Your task to perform on an android device: Add logitech g pro to the cart on amazon.com, then select checkout. Image 0: 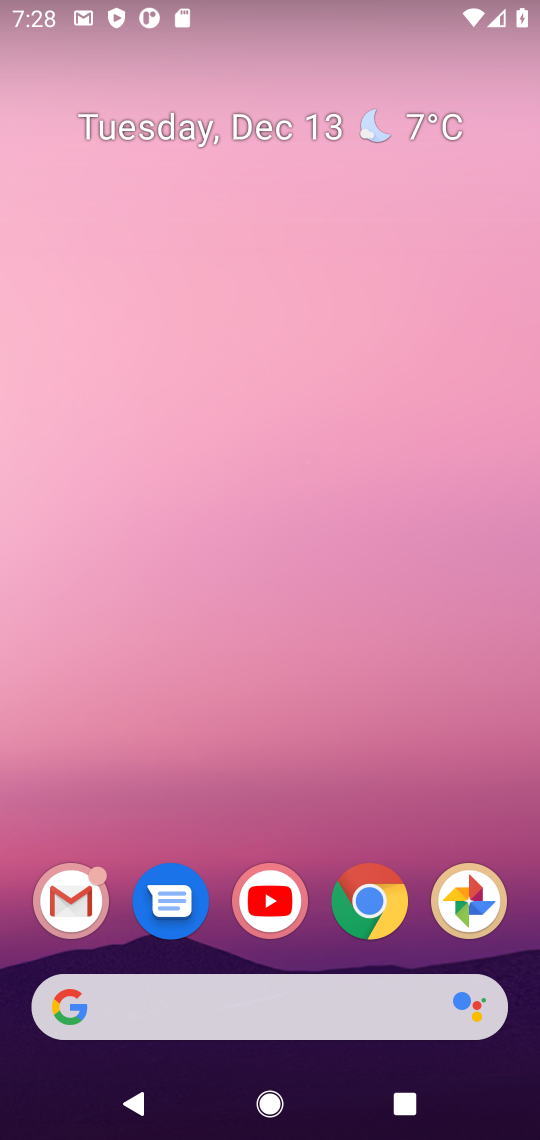
Step 0: click (353, 896)
Your task to perform on an android device: Add logitech g pro to the cart on amazon.com, then select checkout. Image 1: 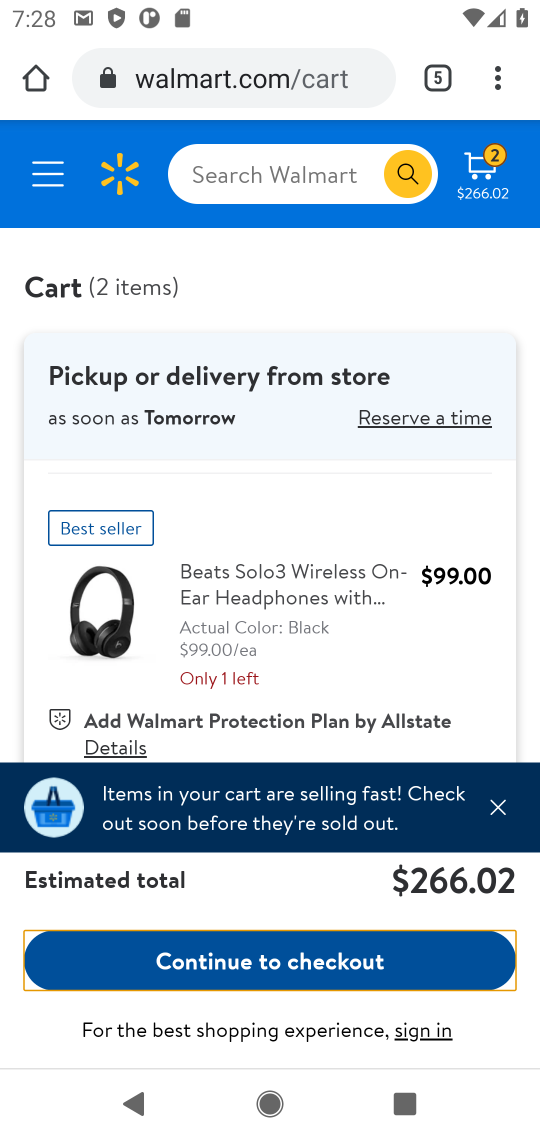
Step 1: click (439, 83)
Your task to perform on an android device: Add logitech g pro to the cart on amazon.com, then select checkout. Image 2: 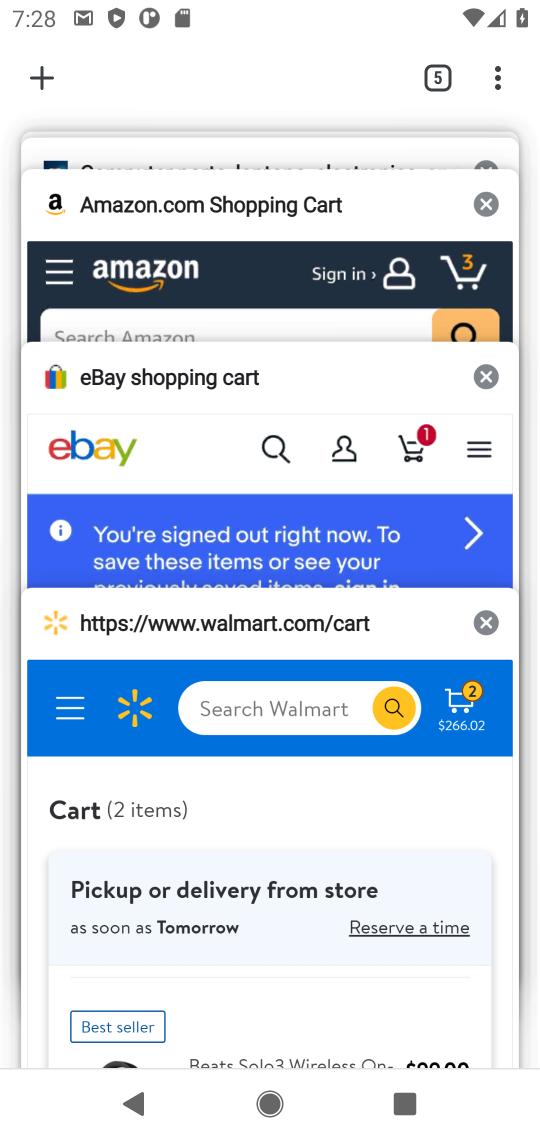
Step 2: click (265, 238)
Your task to perform on an android device: Add logitech g pro to the cart on amazon.com, then select checkout. Image 3: 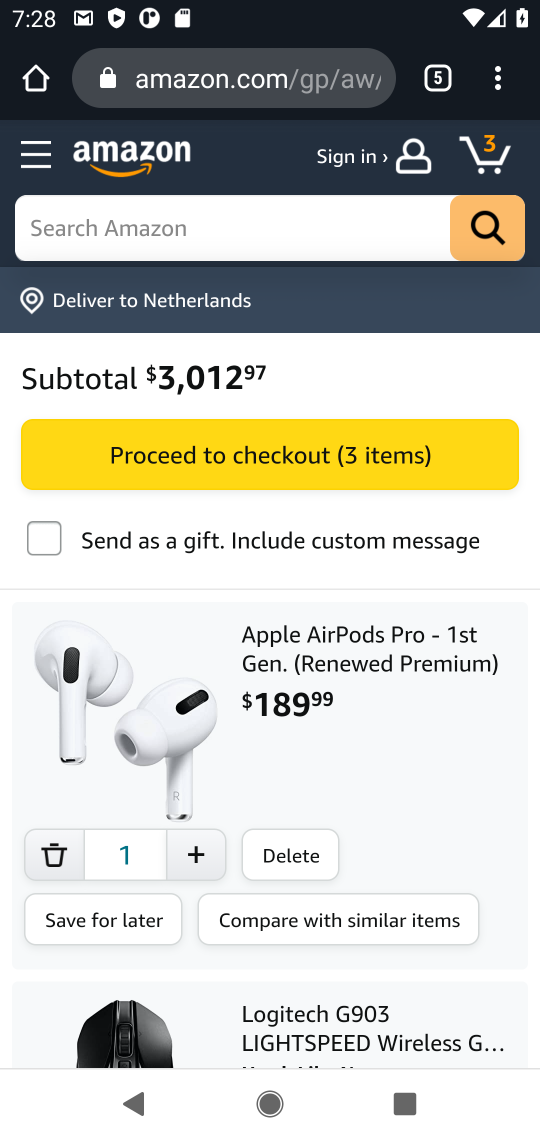
Step 3: click (154, 220)
Your task to perform on an android device: Add logitech g pro to the cart on amazon.com, then select checkout. Image 4: 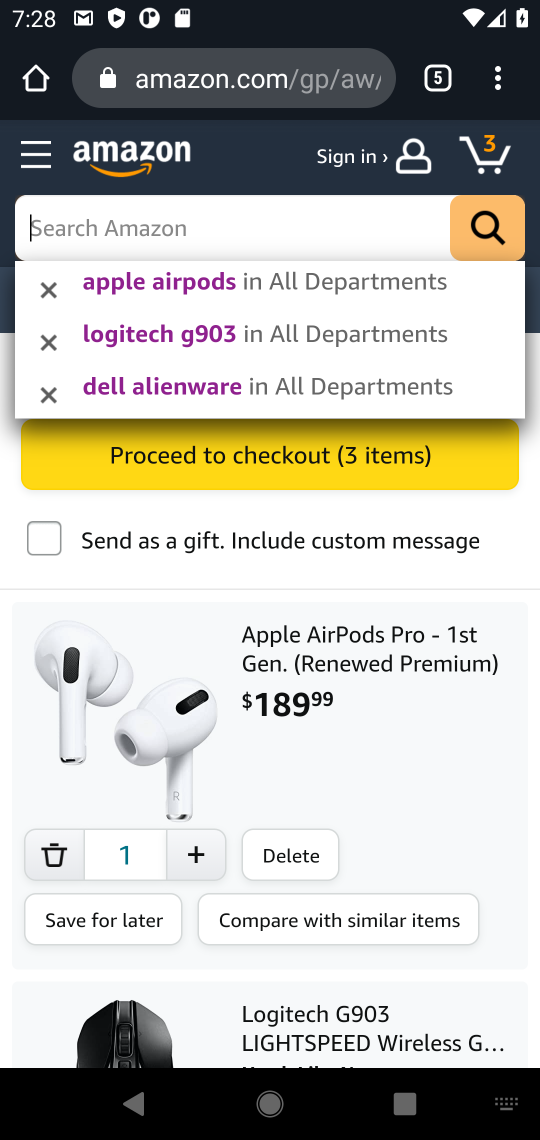
Step 4: type "logitech g pro"
Your task to perform on an android device: Add logitech g pro to the cart on amazon.com, then select checkout. Image 5: 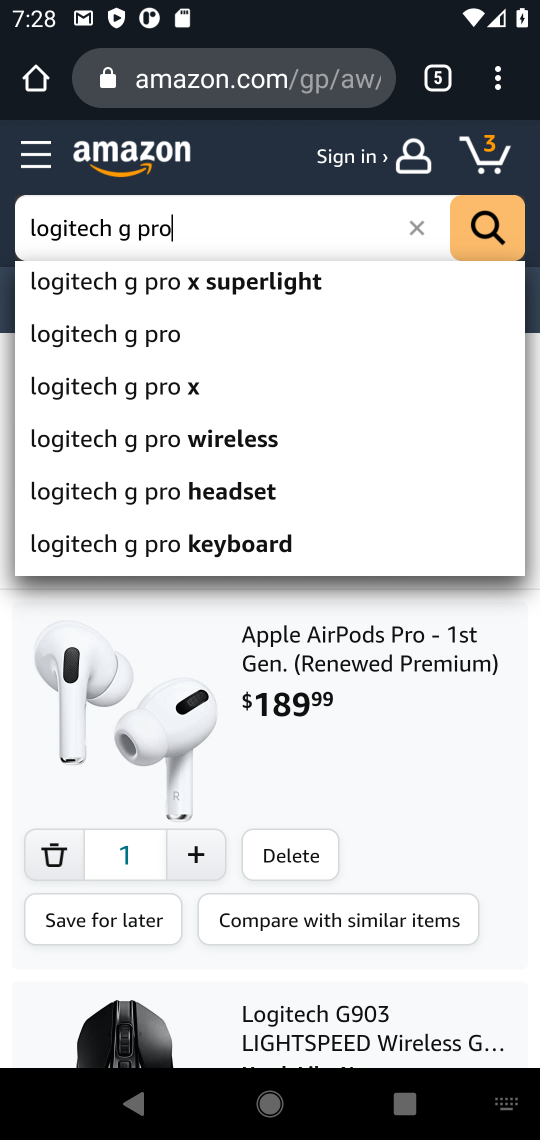
Step 5: click (148, 328)
Your task to perform on an android device: Add logitech g pro to the cart on amazon.com, then select checkout. Image 6: 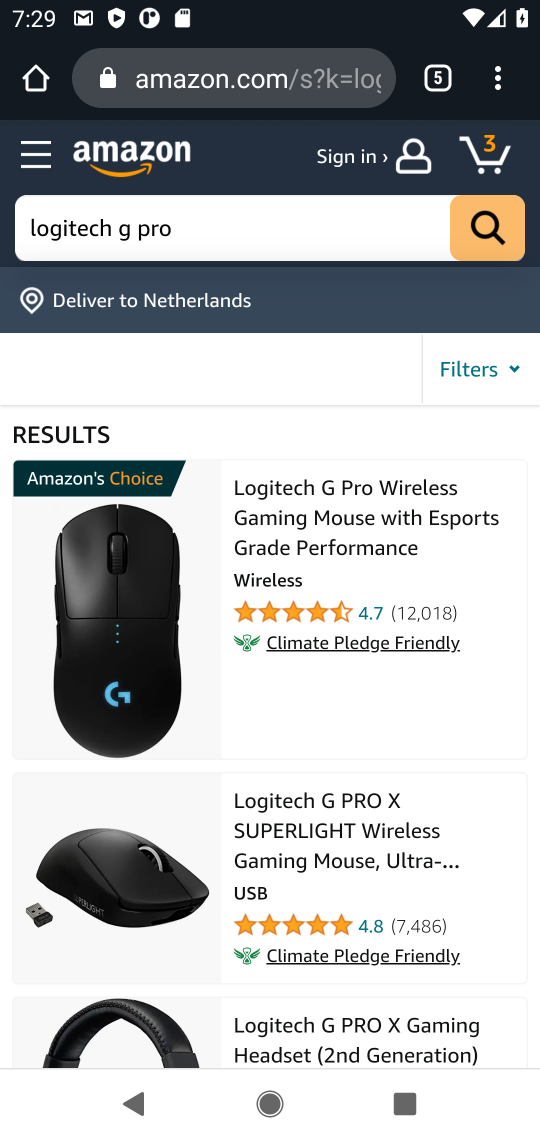
Step 6: click (290, 519)
Your task to perform on an android device: Add logitech g pro to the cart on amazon.com, then select checkout. Image 7: 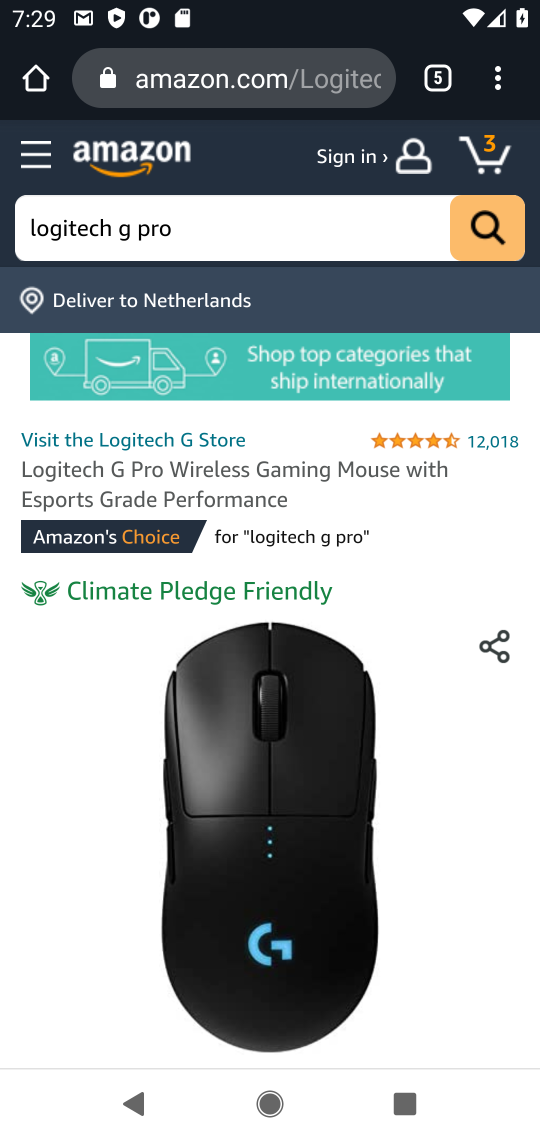
Step 7: drag from (456, 844) to (469, 20)
Your task to perform on an android device: Add logitech g pro to the cart on amazon.com, then select checkout. Image 8: 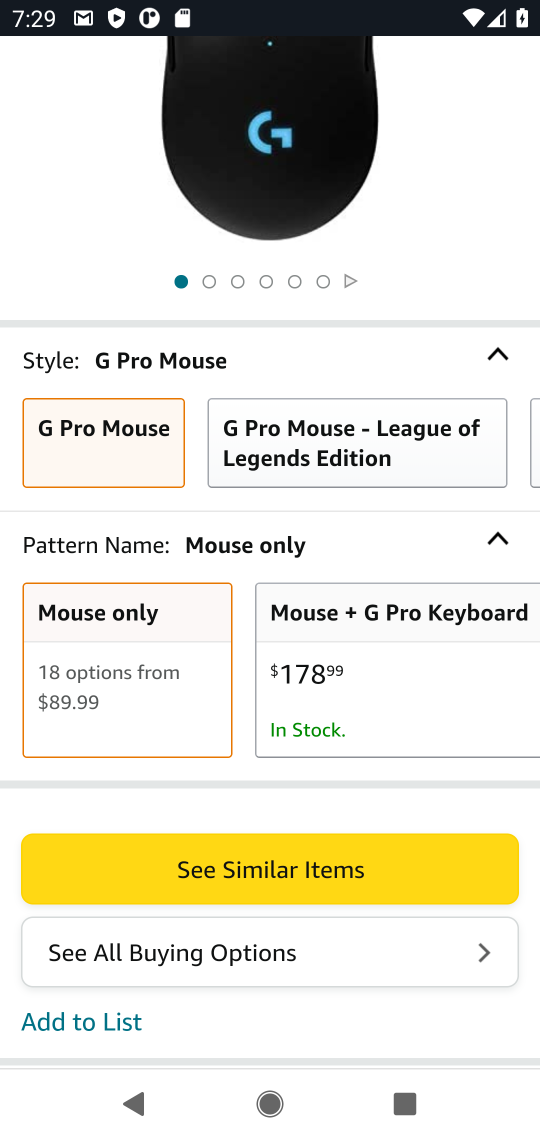
Step 8: click (273, 839)
Your task to perform on an android device: Add logitech g pro to the cart on amazon.com, then select checkout. Image 9: 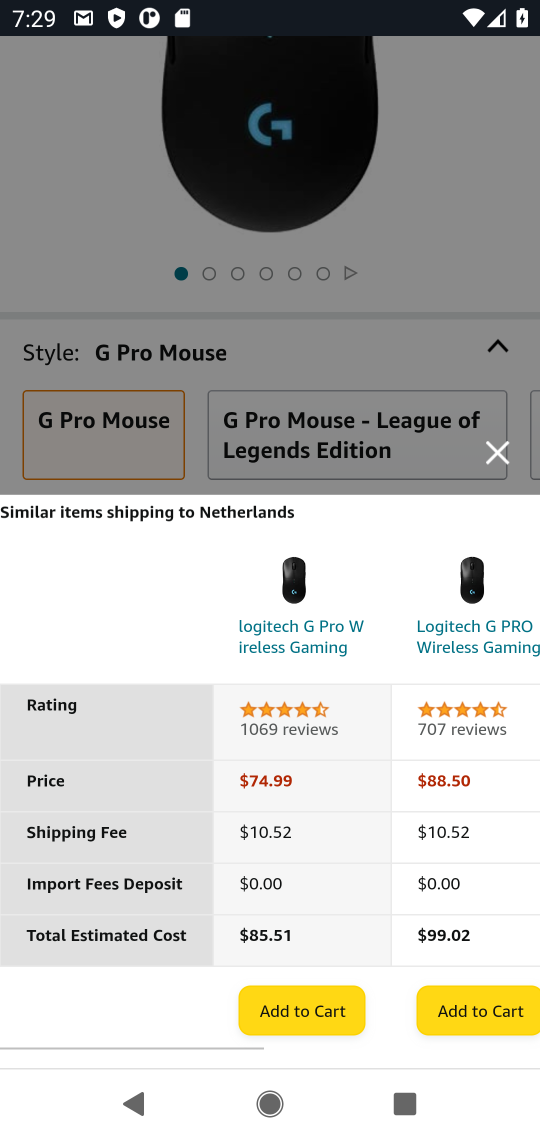
Step 9: click (272, 868)
Your task to perform on an android device: Add logitech g pro to the cart on amazon.com, then select checkout. Image 10: 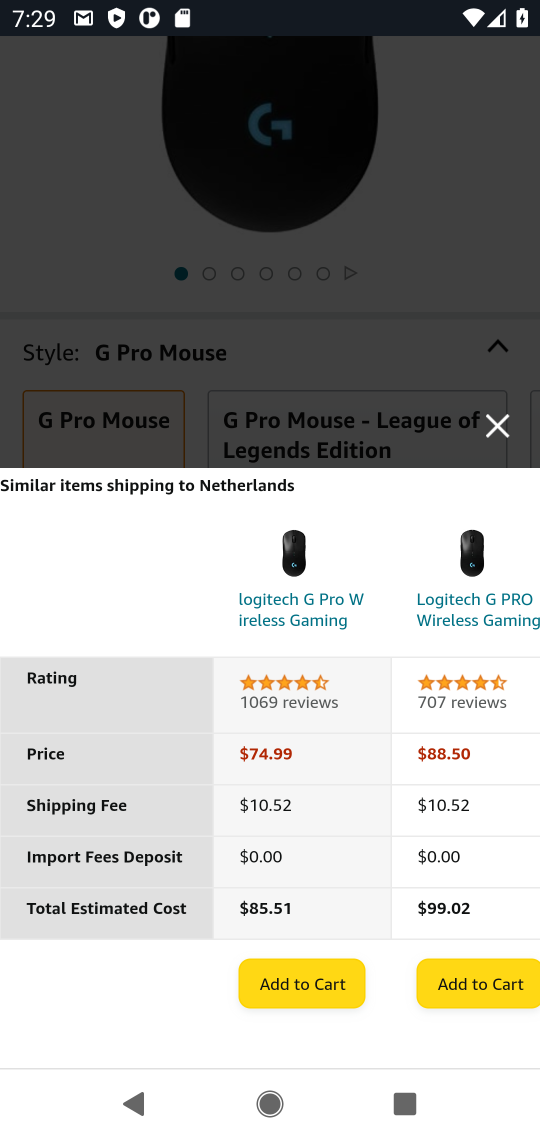
Step 10: click (285, 976)
Your task to perform on an android device: Add logitech g pro to the cart on amazon.com, then select checkout. Image 11: 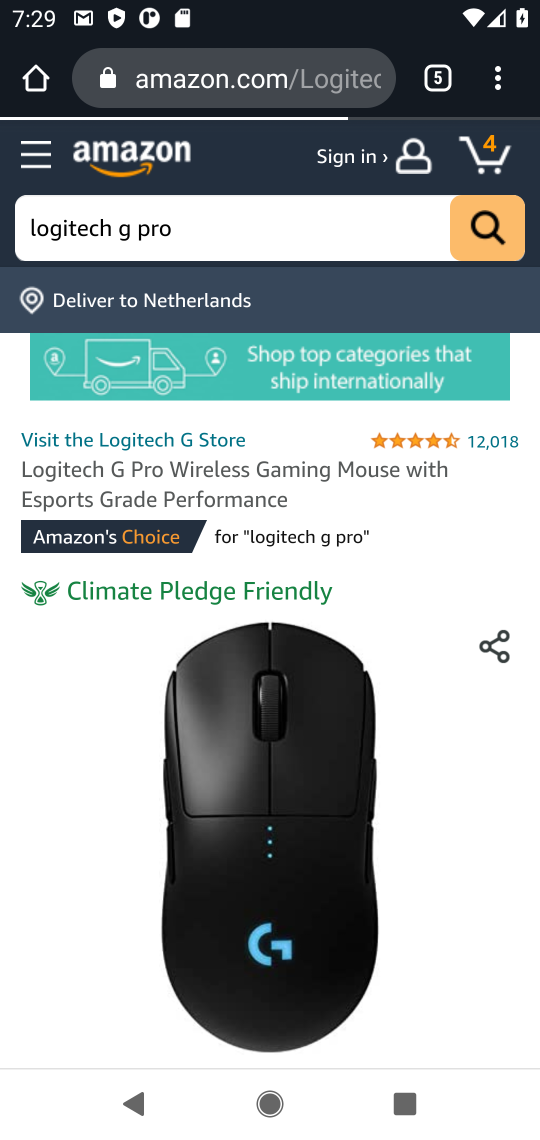
Step 11: task complete